Your task to perform on an android device: Search for "logitech g502" on bestbuy, select the first entry, and add it to the cart. Image 0: 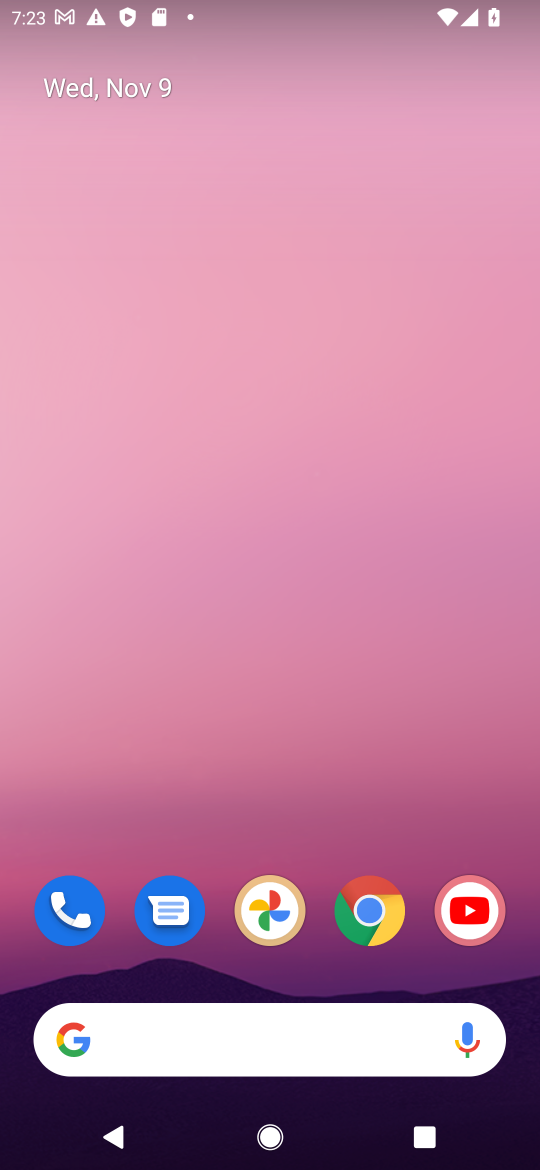
Step 0: click (371, 903)
Your task to perform on an android device: Search for "logitech g502" on bestbuy, select the first entry, and add it to the cart. Image 1: 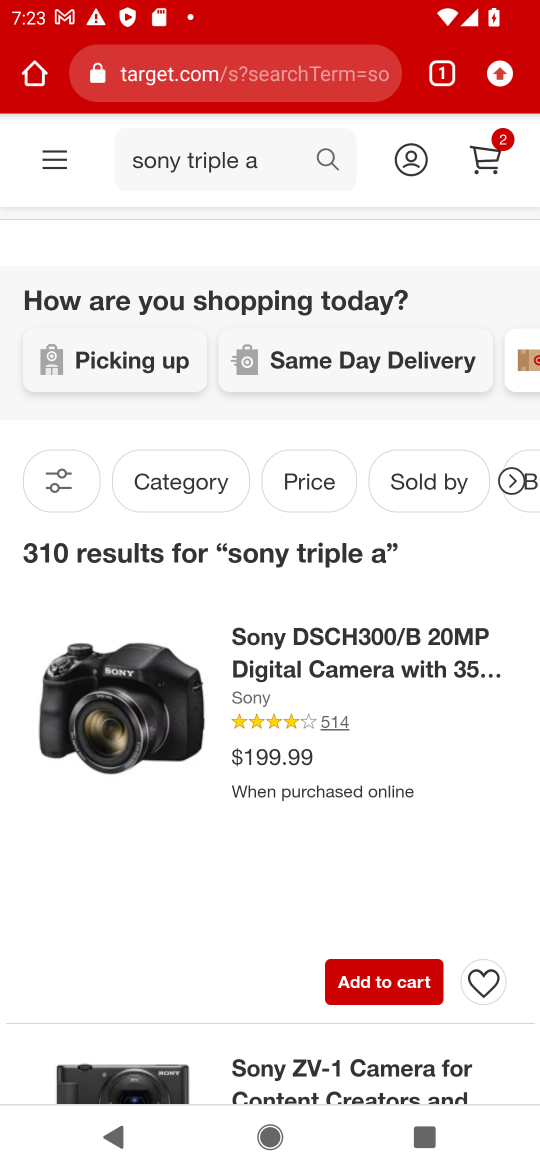
Step 1: click (192, 79)
Your task to perform on an android device: Search for "logitech g502" on bestbuy, select the first entry, and add it to the cart. Image 2: 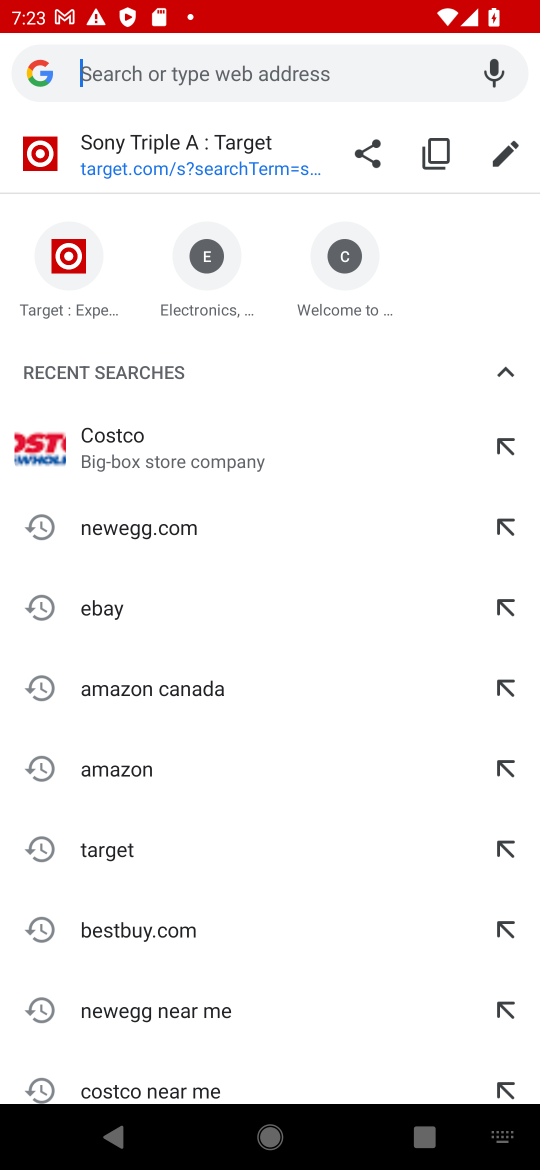
Step 2: click (136, 935)
Your task to perform on an android device: Search for "logitech g502" on bestbuy, select the first entry, and add it to the cart. Image 3: 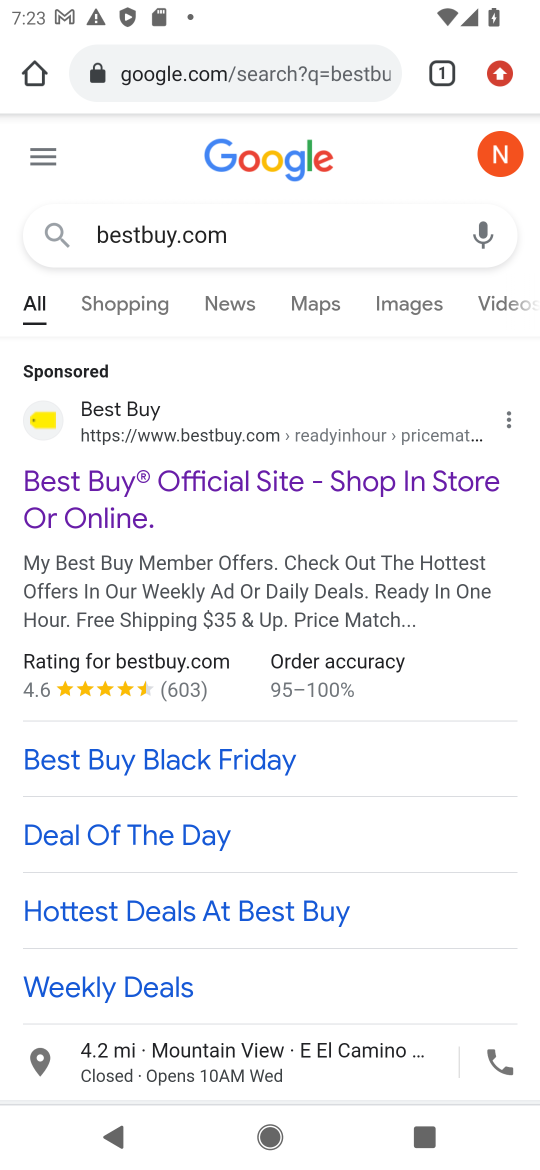
Step 3: drag from (128, 629) to (174, 227)
Your task to perform on an android device: Search for "logitech g502" on bestbuy, select the first entry, and add it to the cart. Image 4: 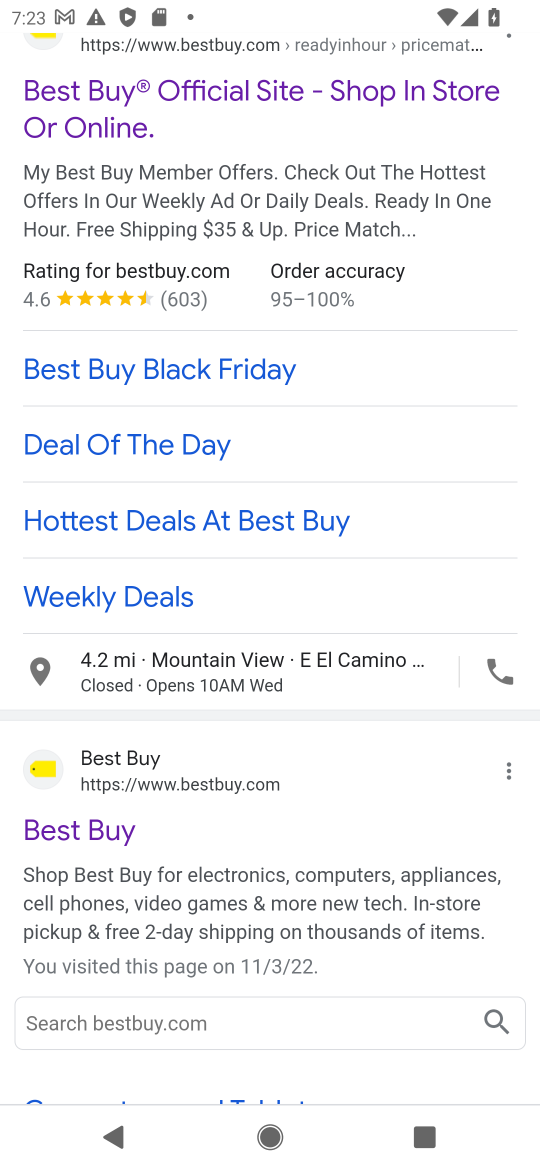
Step 4: click (100, 847)
Your task to perform on an android device: Search for "logitech g502" on bestbuy, select the first entry, and add it to the cart. Image 5: 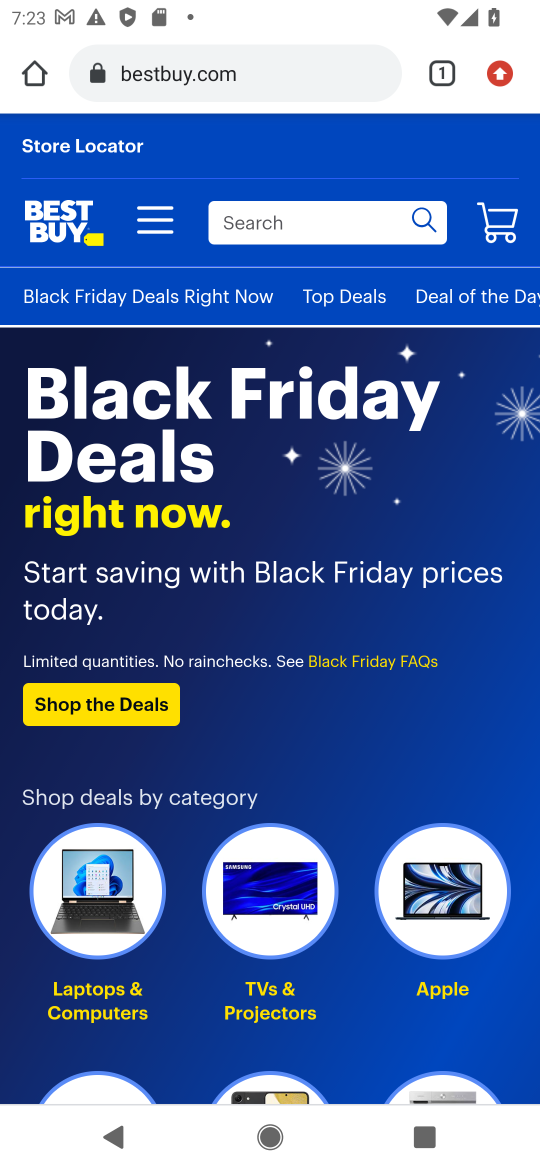
Step 5: click (283, 214)
Your task to perform on an android device: Search for "logitech g502" on bestbuy, select the first entry, and add it to the cart. Image 6: 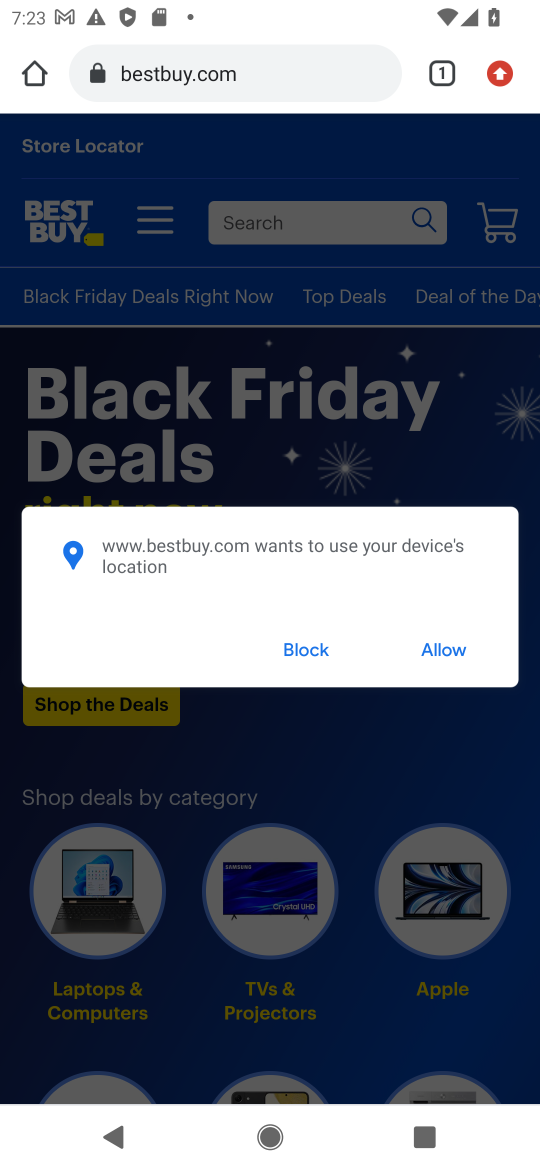
Step 6: click (317, 654)
Your task to perform on an android device: Search for "logitech g502" on bestbuy, select the first entry, and add it to the cart. Image 7: 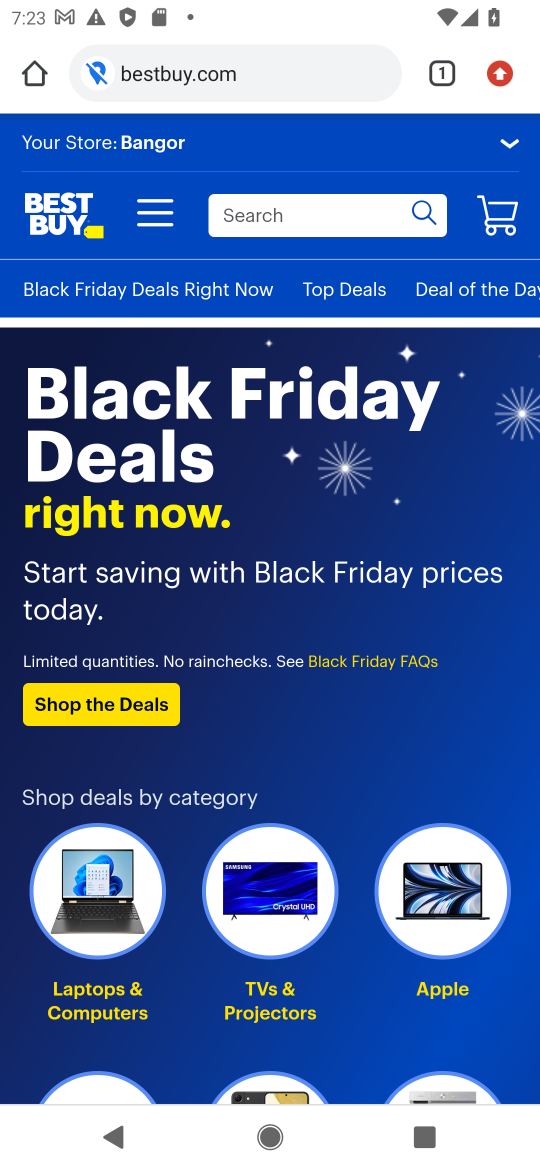
Step 7: click (259, 215)
Your task to perform on an android device: Search for "logitech g502" on bestbuy, select the first entry, and add it to the cart. Image 8: 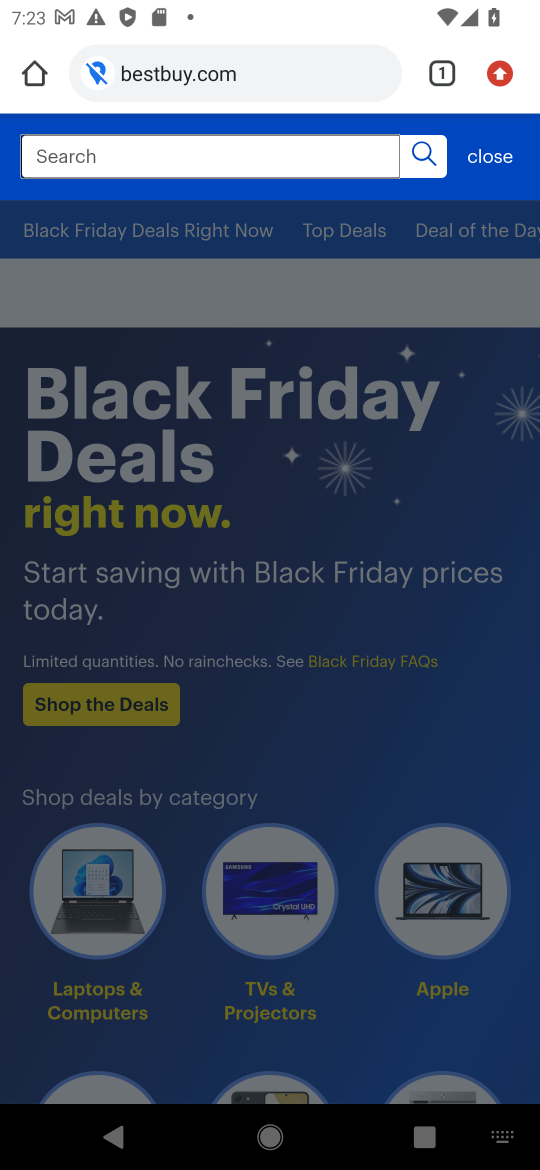
Step 8: type "logitech g502"
Your task to perform on an android device: Search for "logitech g502" on bestbuy, select the first entry, and add it to the cart. Image 9: 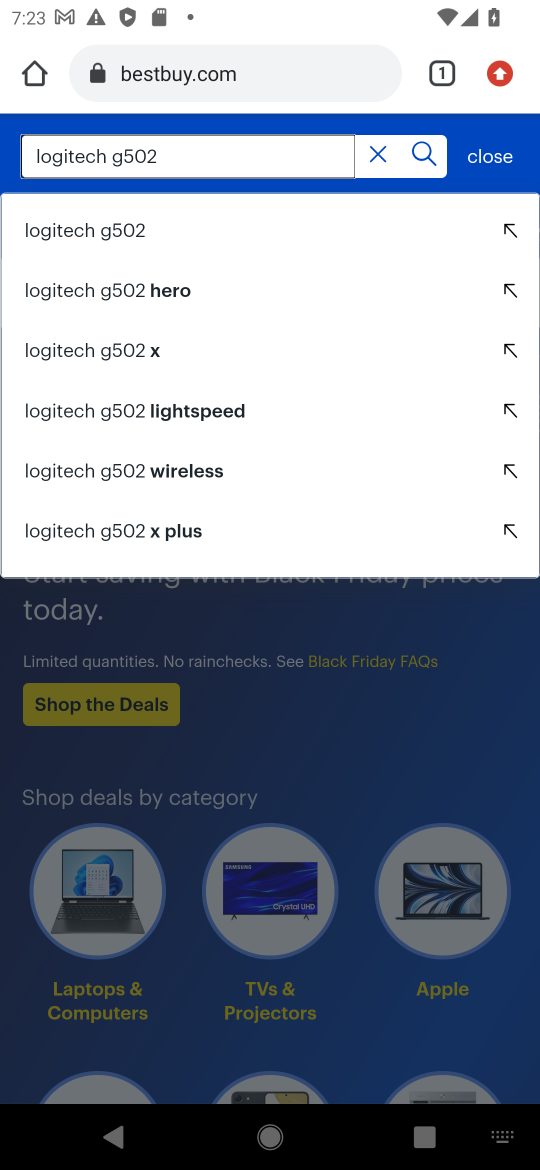
Step 9: click (92, 231)
Your task to perform on an android device: Search for "logitech g502" on bestbuy, select the first entry, and add it to the cart. Image 10: 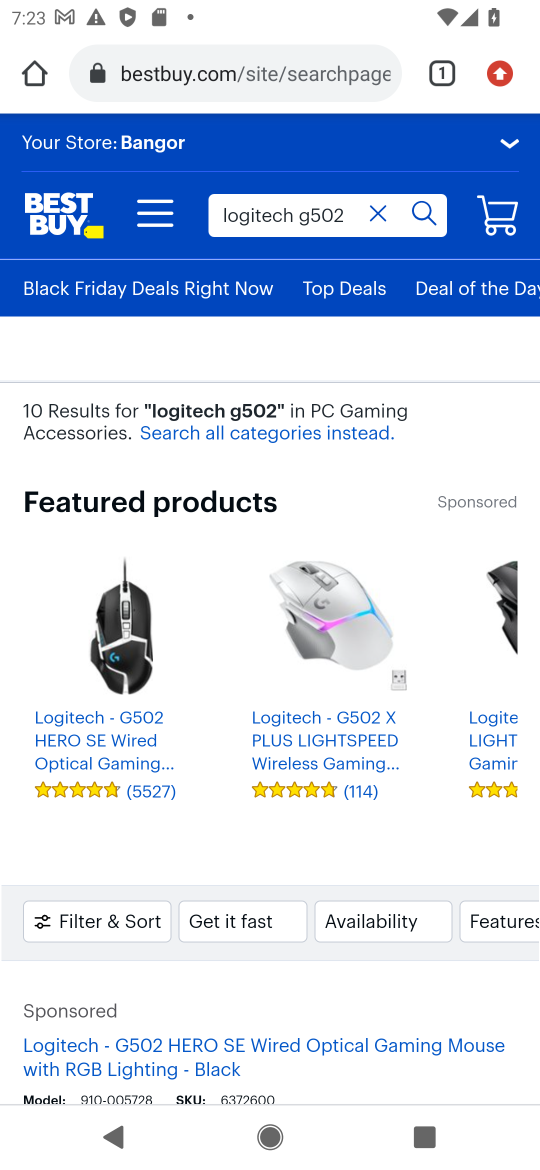
Step 10: drag from (213, 871) to (237, 423)
Your task to perform on an android device: Search for "logitech g502" on bestbuy, select the first entry, and add it to the cart. Image 11: 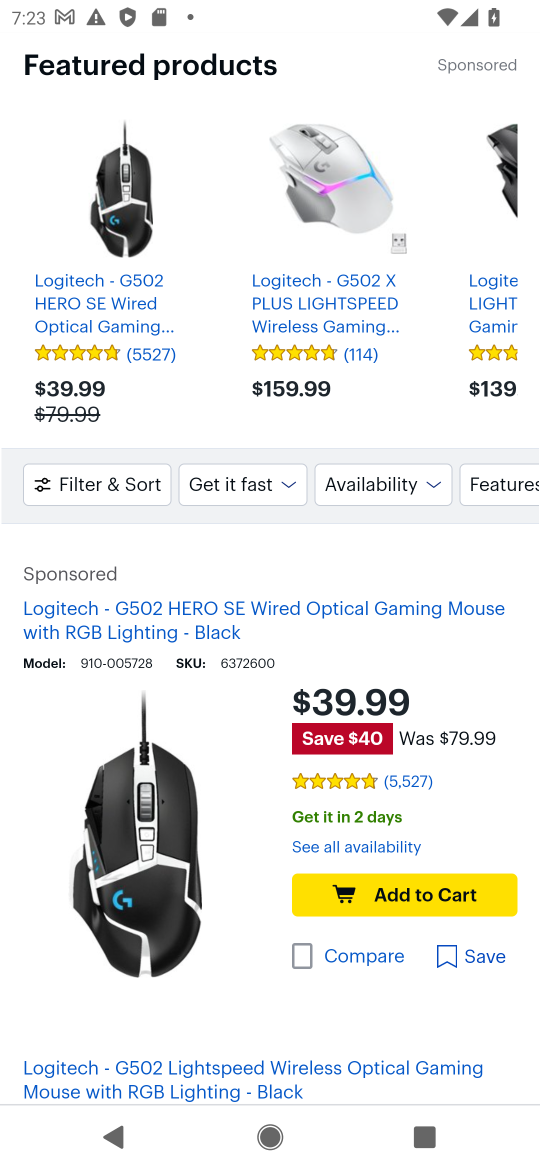
Step 11: click (397, 891)
Your task to perform on an android device: Search for "logitech g502" on bestbuy, select the first entry, and add it to the cart. Image 12: 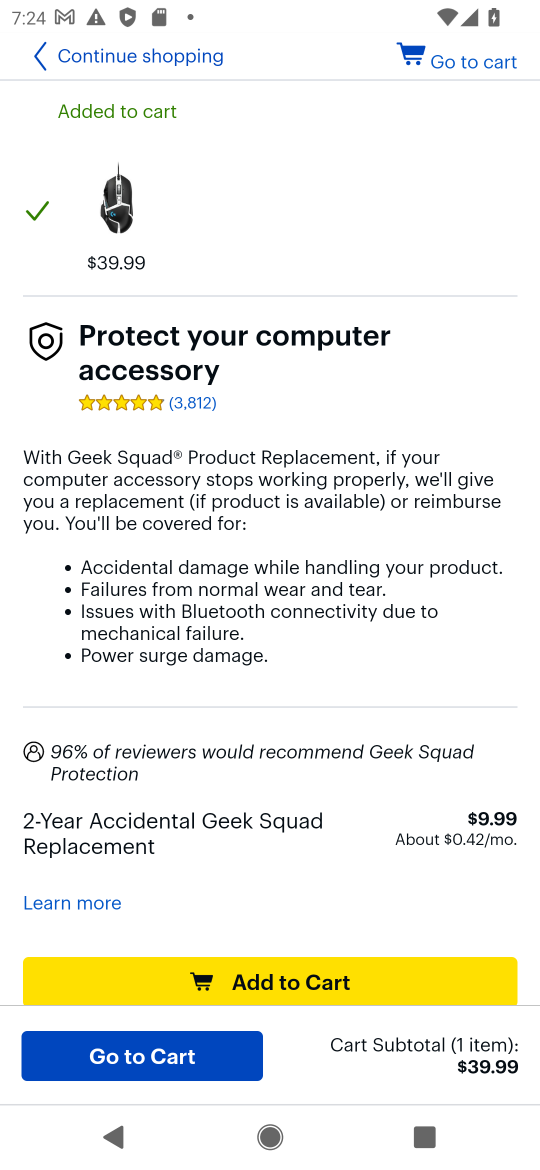
Step 12: task complete